Your task to perform on an android device: change timer sound Image 0: 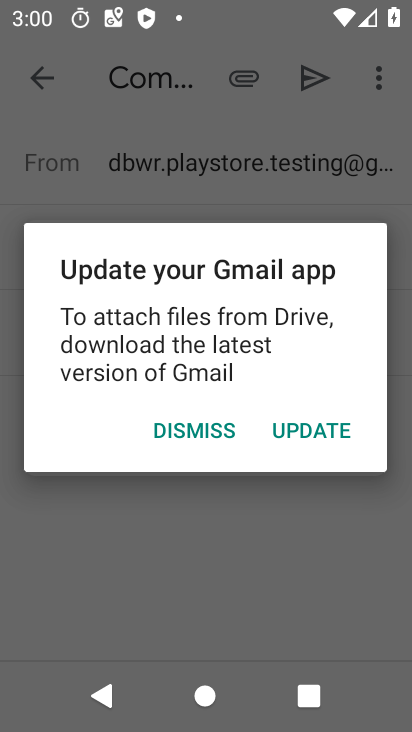
Step 0: press home button
Your task to perform on an android device: change timer sound Image 1: 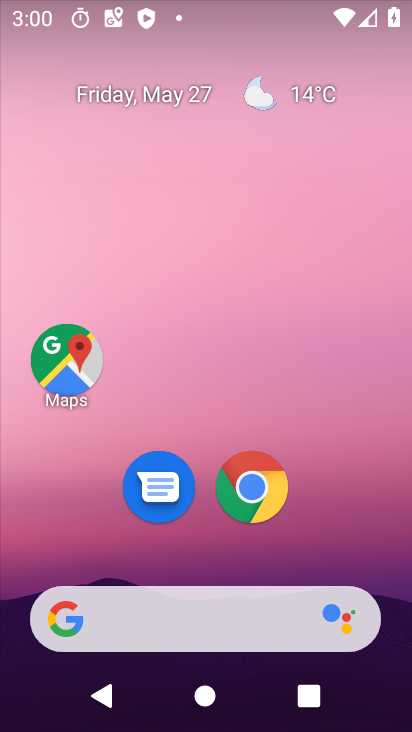
Step 1: drag from (315, 508) to (340, 121)
Your task to perform on an android device: change timer sound Image 2: 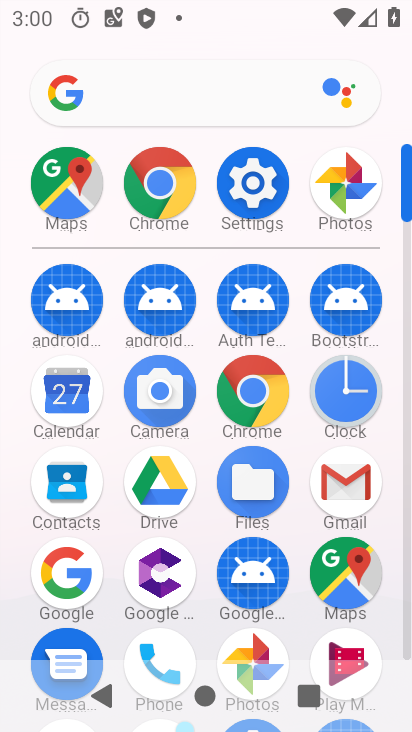
Step 2: click (249, 186)
Your task to perform on an android device: change timer sound Image 3: 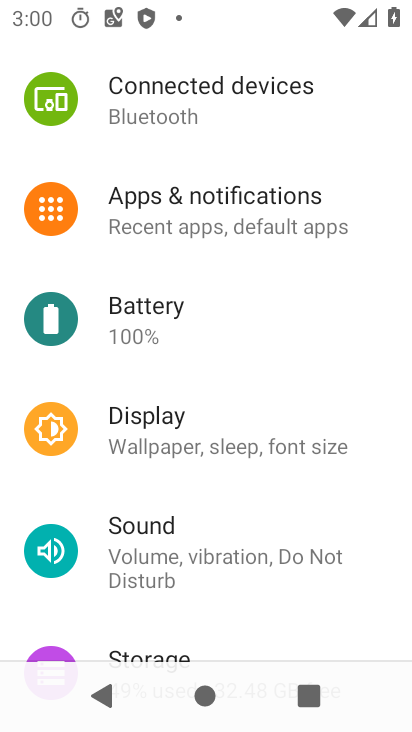
Step 3: click (183, 542)
Your task to perform on an android device: change timer sound Image 4: 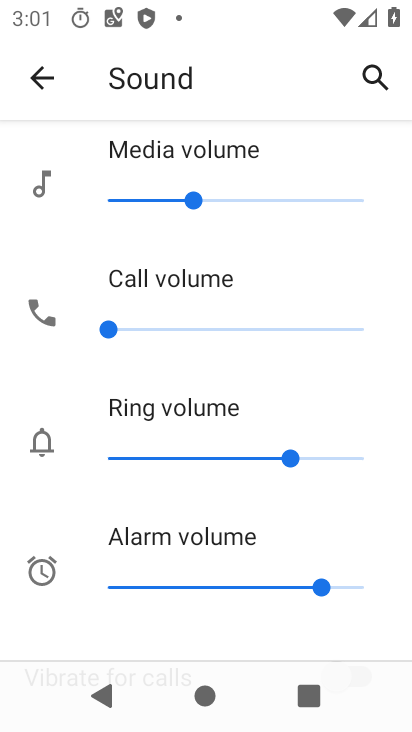
Step 4: press home button
Your task to perform on an android device: change timer sound Image 5: 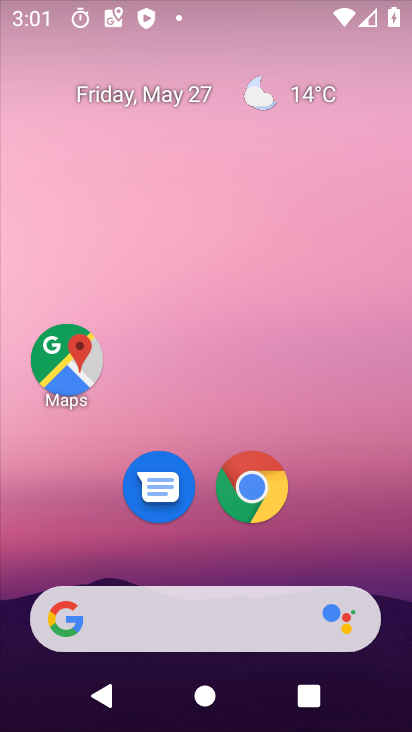
Step 5: drag from (344, 428) to (356, 46)
Your task to perform on an android device: change timer sound Image 6: 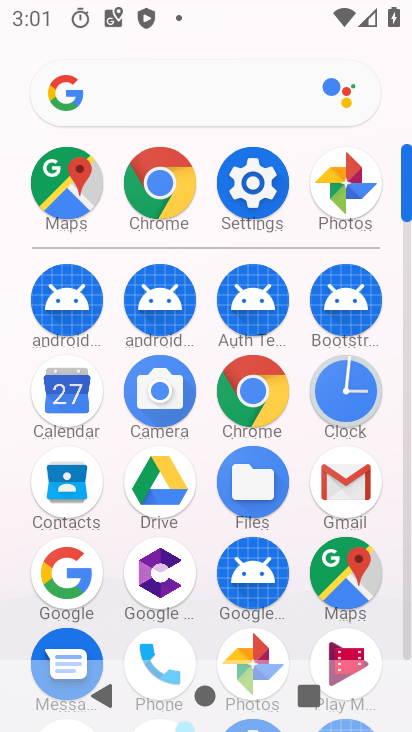
Step 6: click (344, 403)
Your task to perform on an android device: change timer sound Image 7: 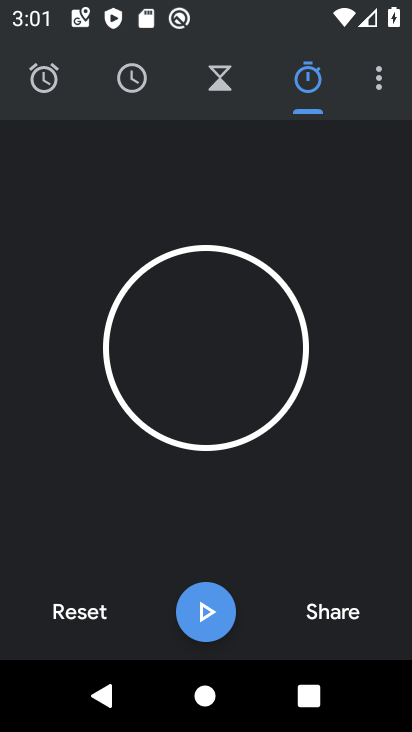
Step 7: click (382, 74)
Your task to perform on an android device: change timer sound Image 8: 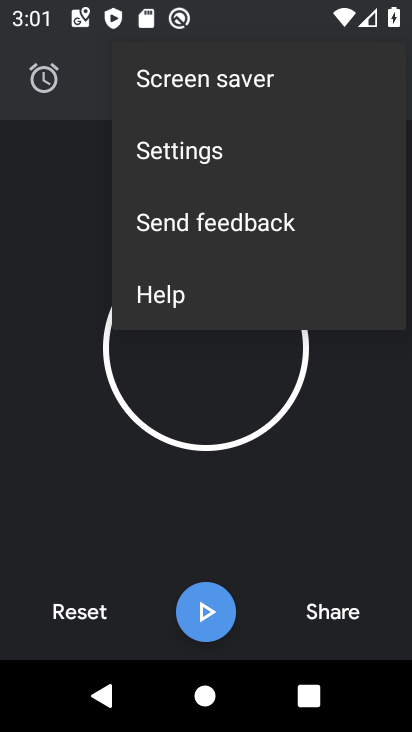
Step 8: click (212, 156)
Your task to perform on an android device: change timer sound Image 9: 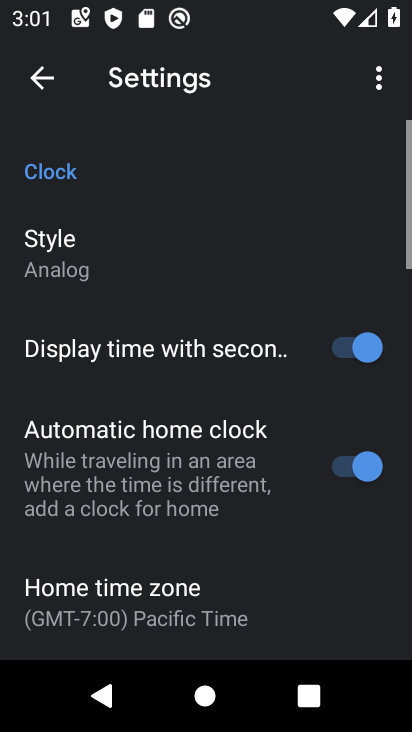
Step 9: drag from (165, 515) to (213, 131)
Your task to perform on an android device: change timer sound Image 10: 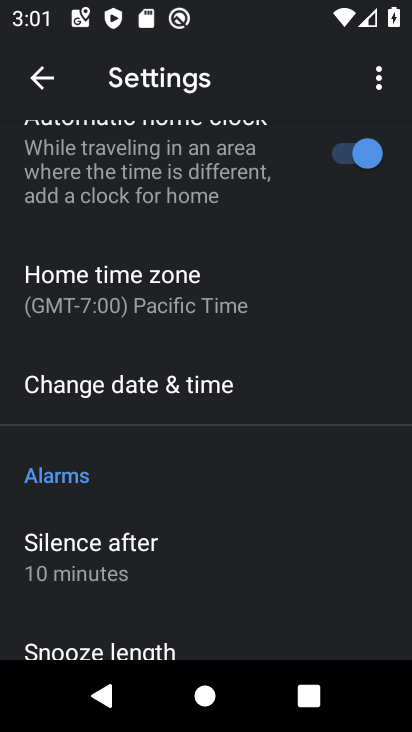
Step 10: drag from (161, 580) to (194, 161)
Your task to perform on an android device: change timer sound Image 11: 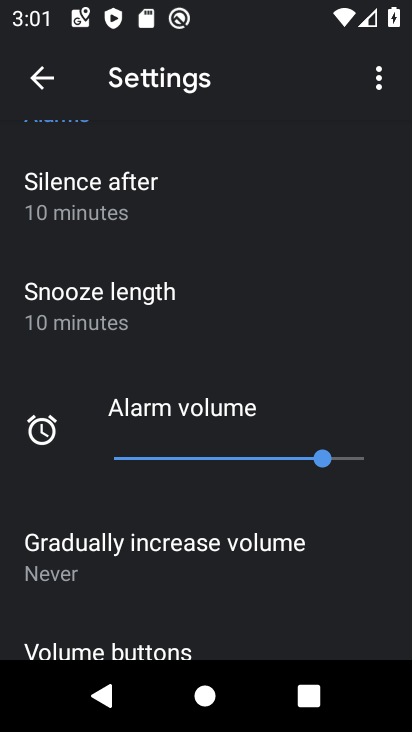
Step 11: drag from (240, 597) to (289, 121)
Your task to perform on an android device: change timer sound Image 12: 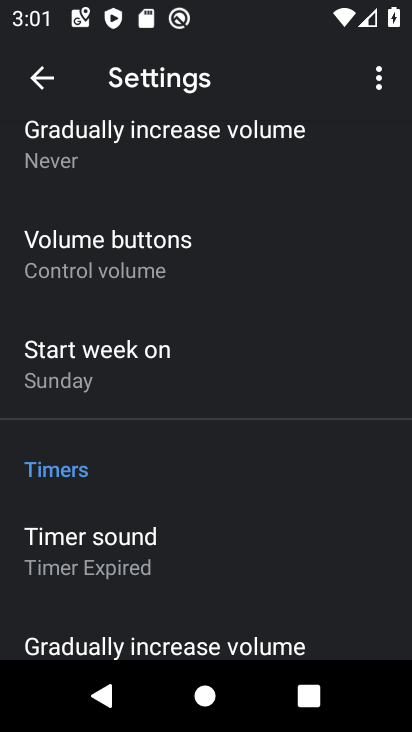
Step 12: click (108, 537)
Your task to perform on an android device: change timer sound Image 13: 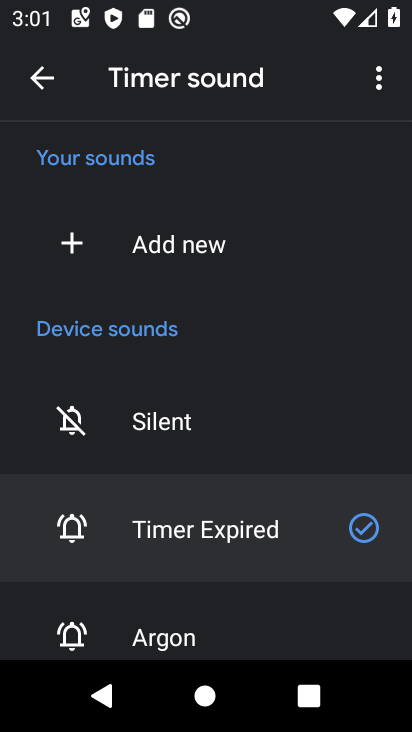
Step 13: click (216, 633)
Your task to perform on an android device: change timer sound Image 14: 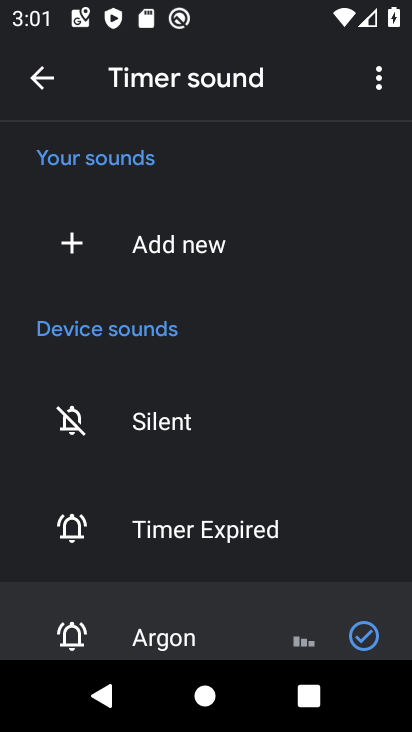
Step 14: task complete